Your task to perform on an android device: Play the latest video from the Wall Street Journal Image 0: 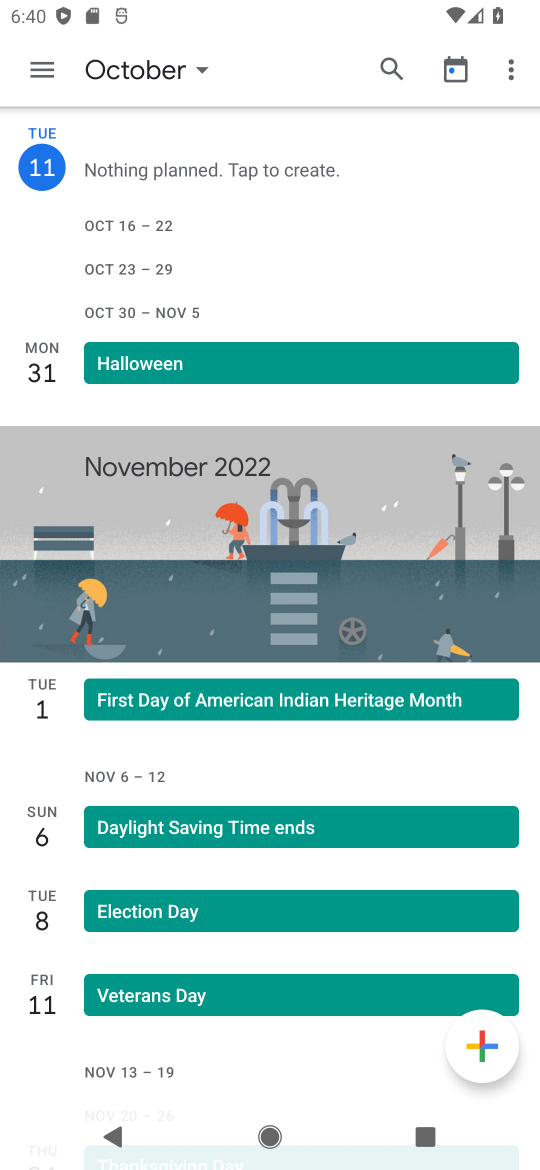
Step 0: press home button
Your task to perform on an android device: Play the latest video from the Wall Street Journal Image 1: 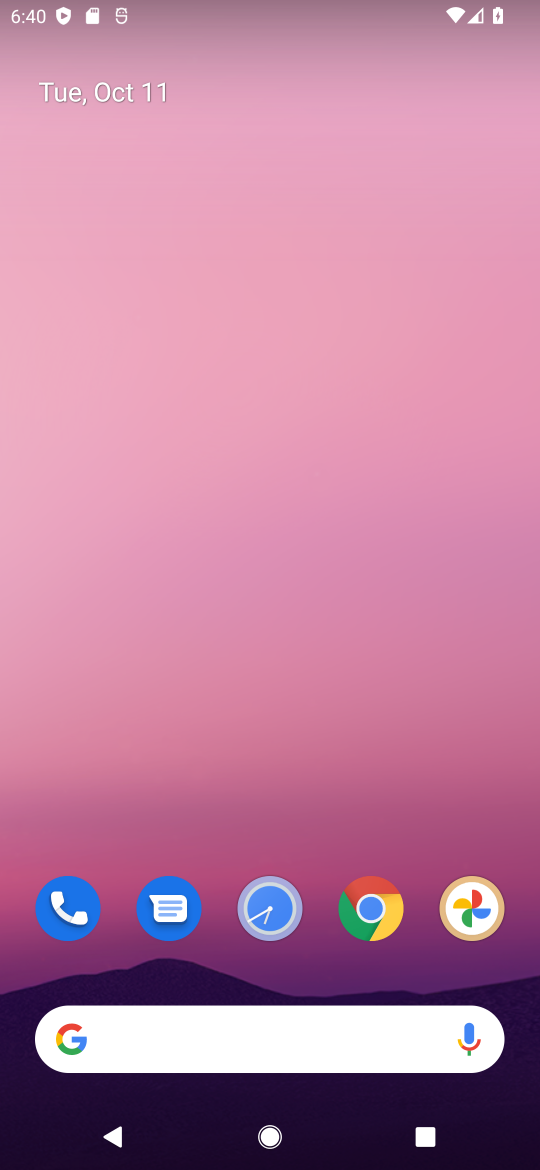
Step 1: click (241, 1038)
Your task to perform on an android device: Play the latest video from the Wall Street Journal Image 2: 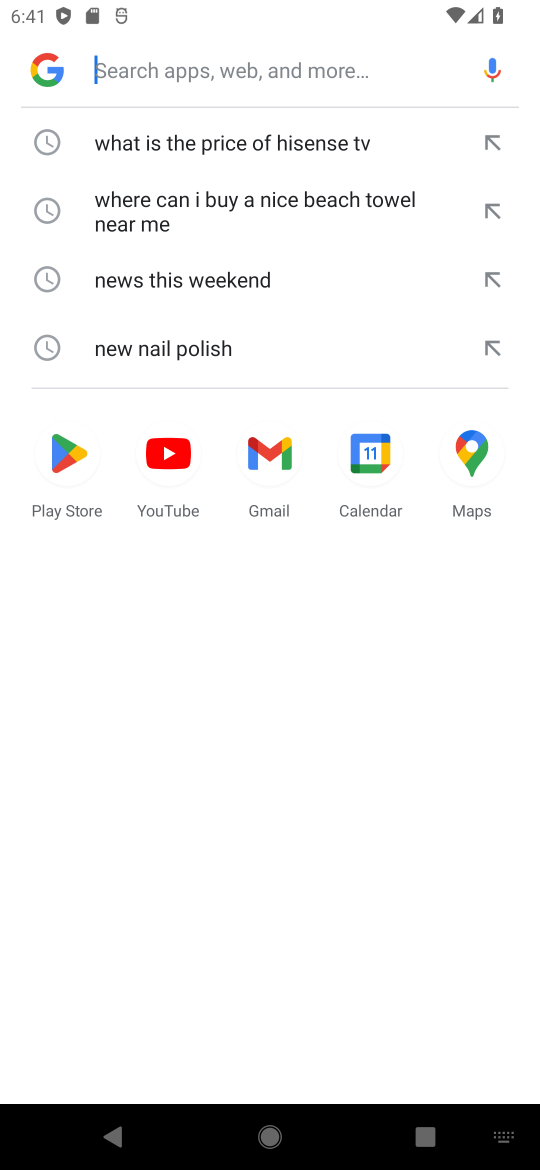
Step 2: type "Play the latest video from the Wall Street Journal"
Your task to perform on an android device: Play the latest video from the Wall Street Journal Image 3: 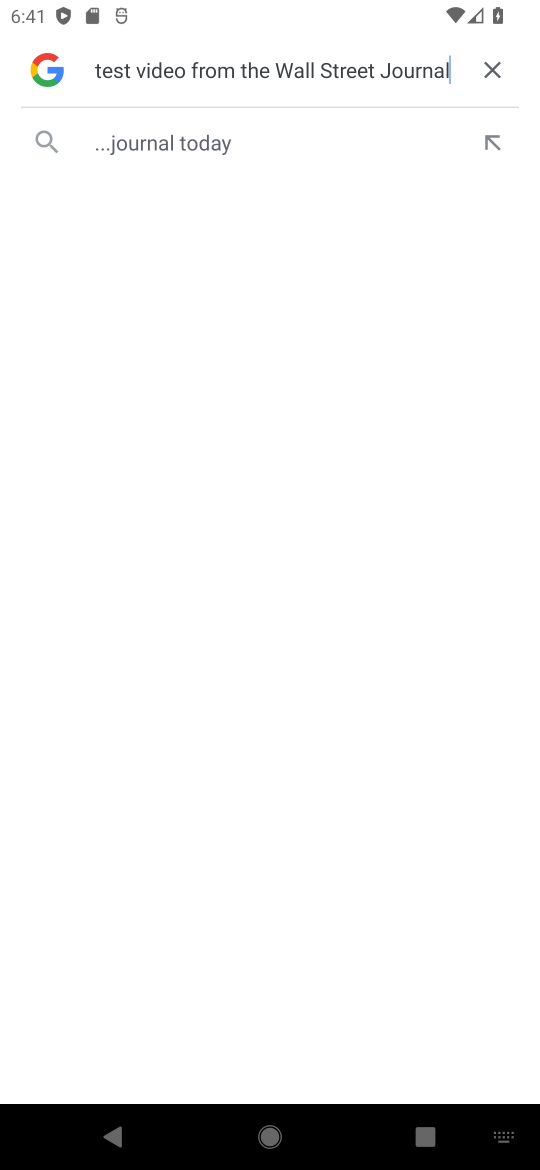
Step 3: click (177, 136)
Your task to perform on an android device: Play the latest video from the Wall Street Journal Image 4: 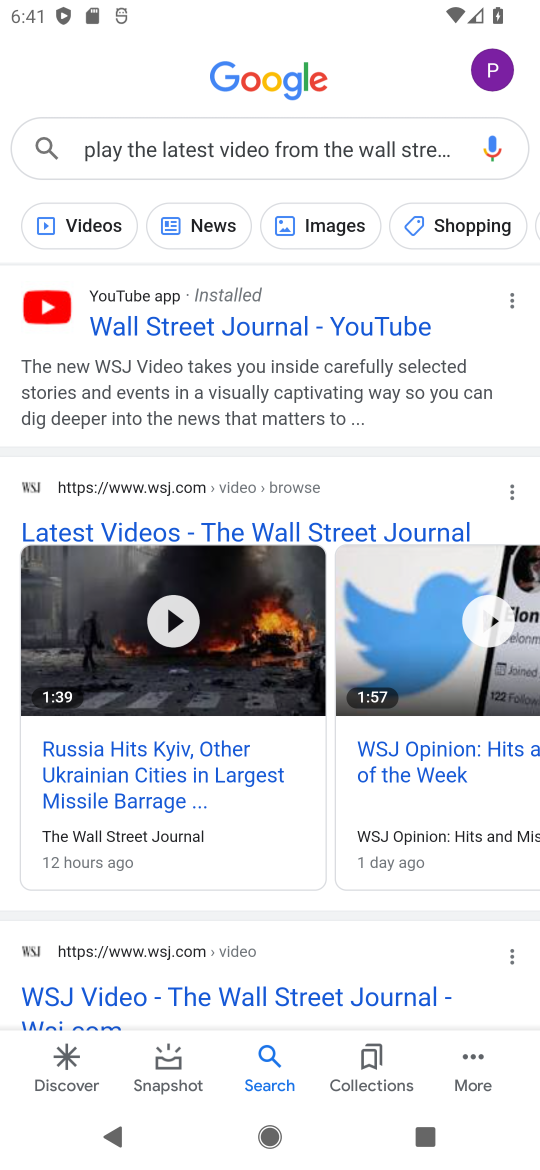
Step 4: click (189, 323)
Your task to perform on an android device: Play the latest video from the Wall Street Journal Image 5: 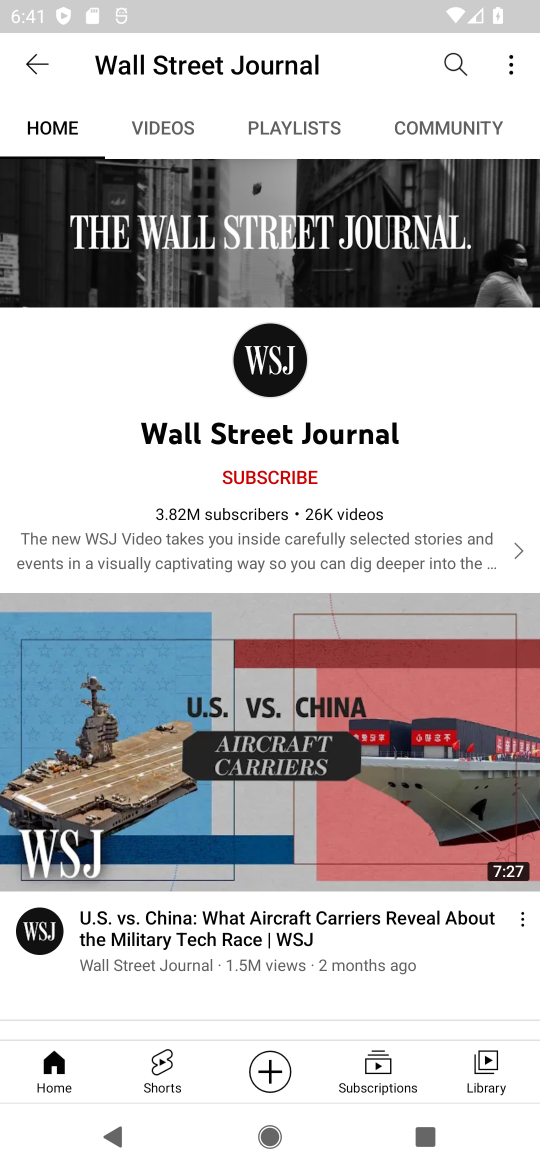
Step 5: click (194, 824)
Your task to perform on an android device: Play the latest video from the Wall Street Journal Image 6: 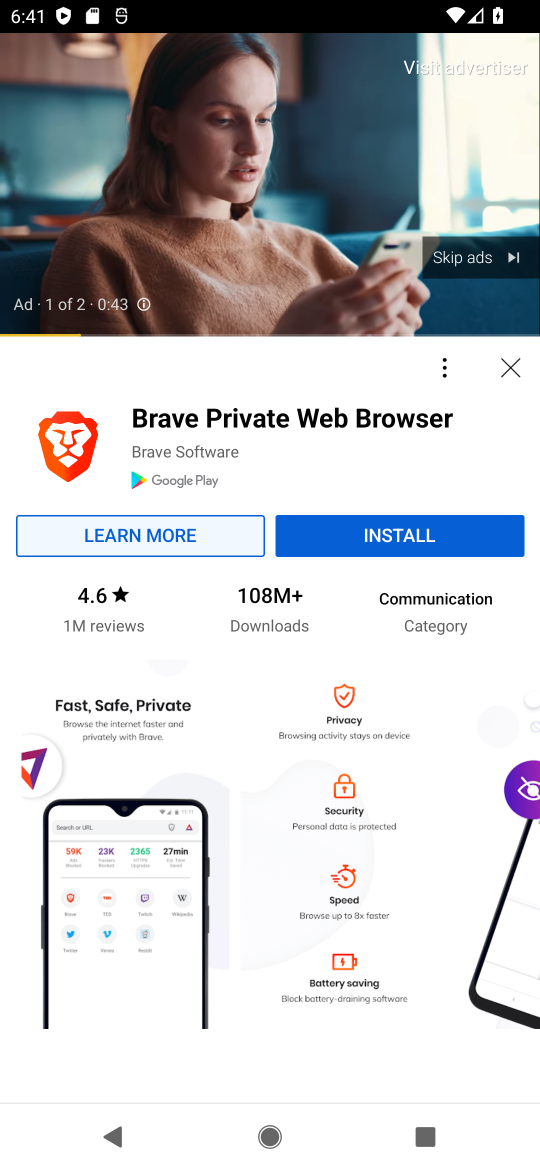
Step 6: click (481, 265)
Your task to perform on an android device: Play the latest video from the Wall Street Journal Image 7: 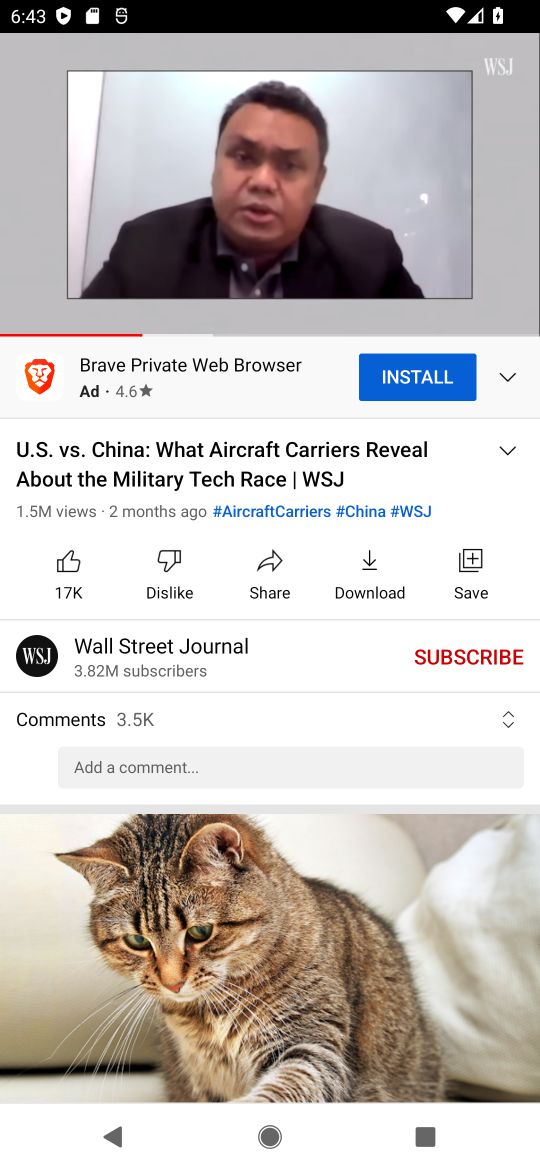
Step 7: task complete